Your task to perform on an android device: Open Google Maps and go to "Timeline" Image 0: 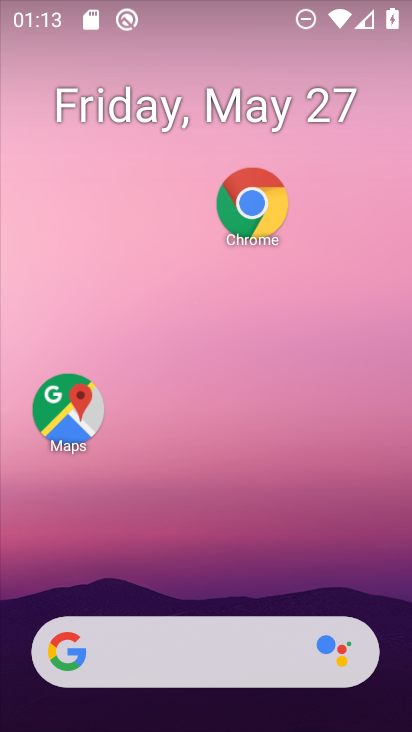
Step 0: drag from (189, 564) to (195, 14)
Your task to perform on an android device: Open Google Maps and go to "Timeline" Image 1: 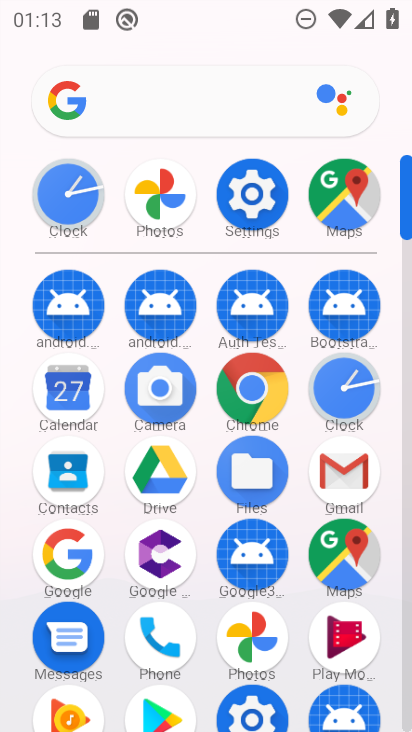
Step 1: click (336, 532)
Your task to perform on an android device: Open Google Maps and go to "Timeline" Image 2: 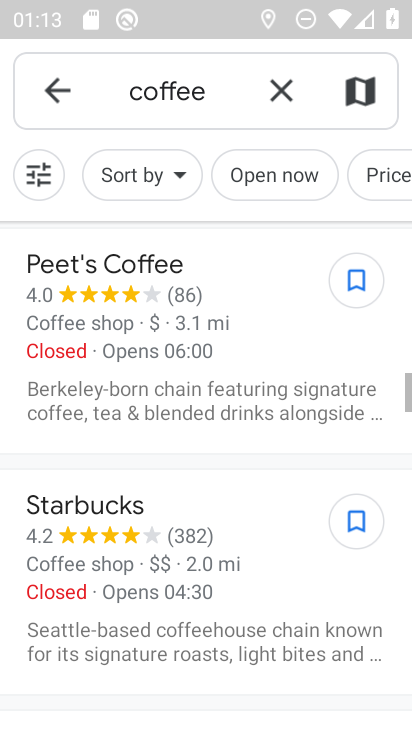
Step 2: click (53, 92)
Your task to perform on an android device: Open Google Maps and go to "Timeline" Image 3: 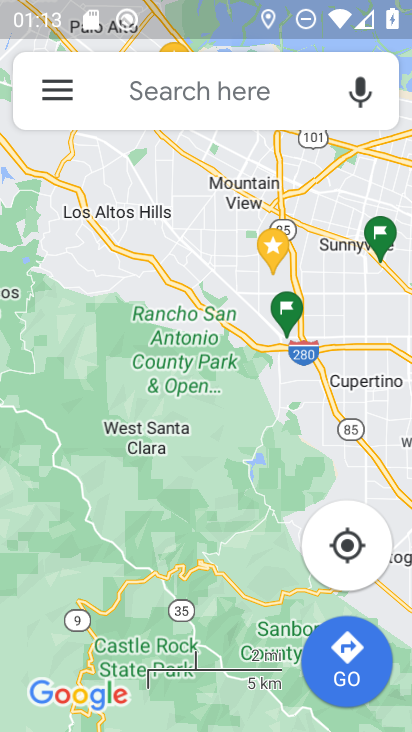
Step 3: click (53, 93)
Your task to perform on an android device: Open Google Maps and go to "Timeline" Image 4: 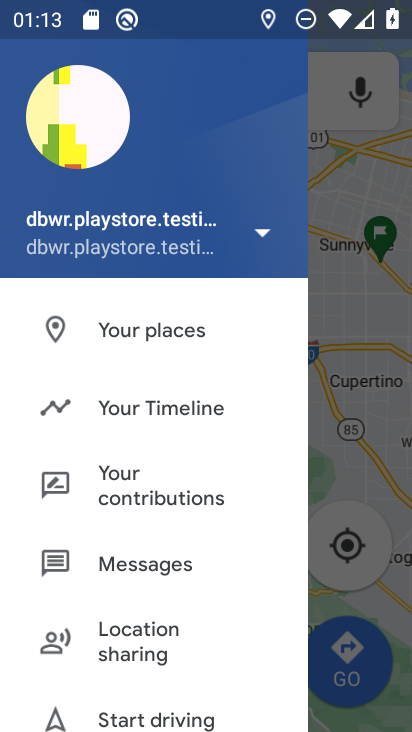
Step 4: drag from (115, 589) to (253, 197)
Your task to perform on an android device: Open Google Maps and go to "Timeline" Image 5: 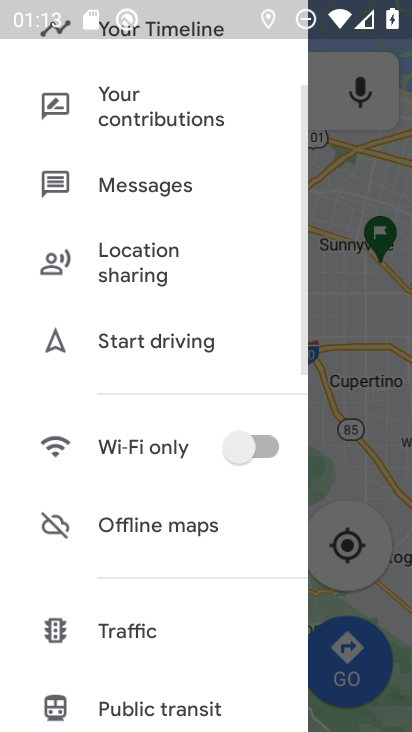
Step 5: drag from (131, 604) to (228, 267)
Your task to perform on an android device: Open Google Maps and go to "Timeline" Image 6: 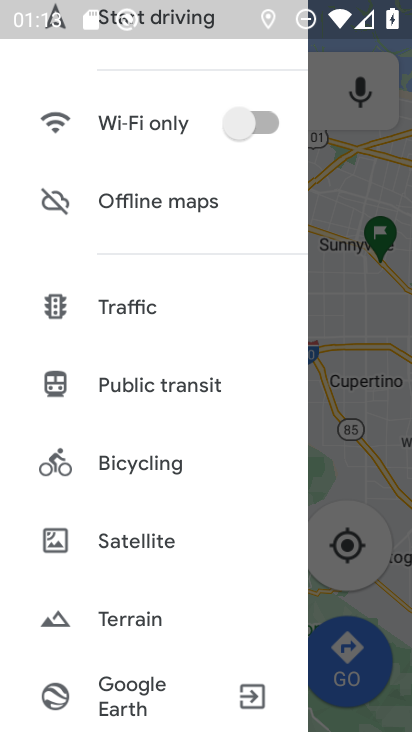
Step 6: drag from (221, 234) to (208, 728)
Your task to perform on an android device: Open Google Maps and go to "Timeline" Image 7: 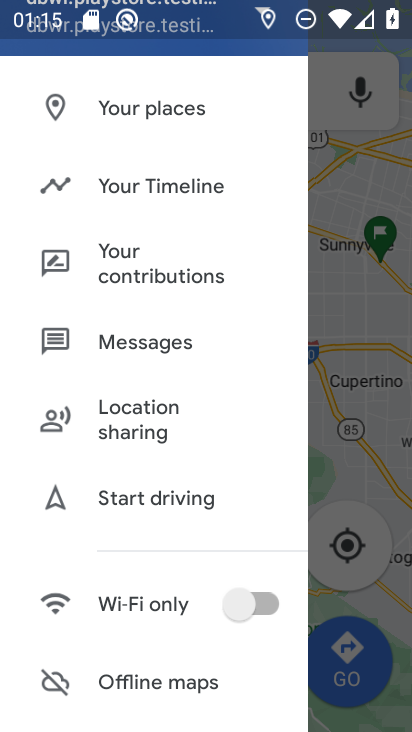
Step 7: click (157, 202)
Your task to perform on an android device: Open Google Maps and go to "Timeline" Image 8: 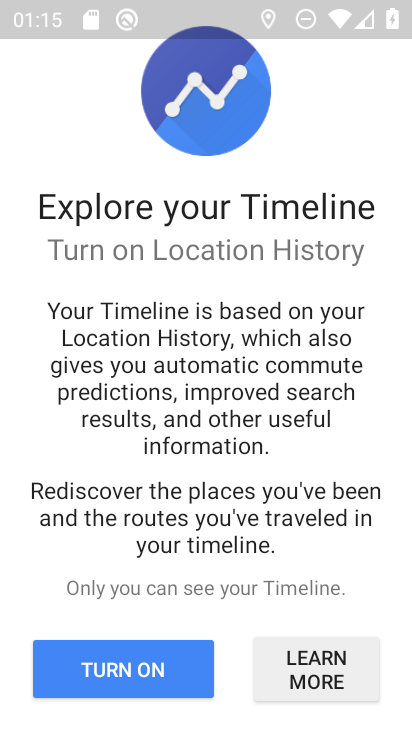
Step 8: click (112, 661)
Your task to perform on an android device: Open Google Maps and go to "Timeline" Image 9: 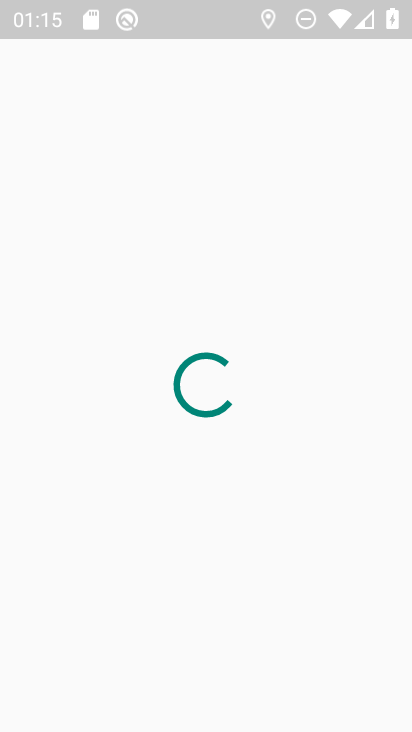
Step 9: task complete